Your task to perform on an android device: check the backup settings in the google photos Image 0: 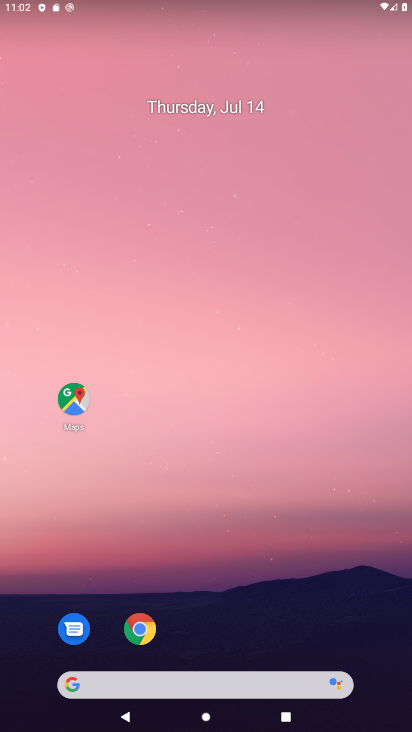
Step 0: drag from (223, 616) to (244, 15)
Your task to perform on an android device: check the backup settings in the google photos Image 1: 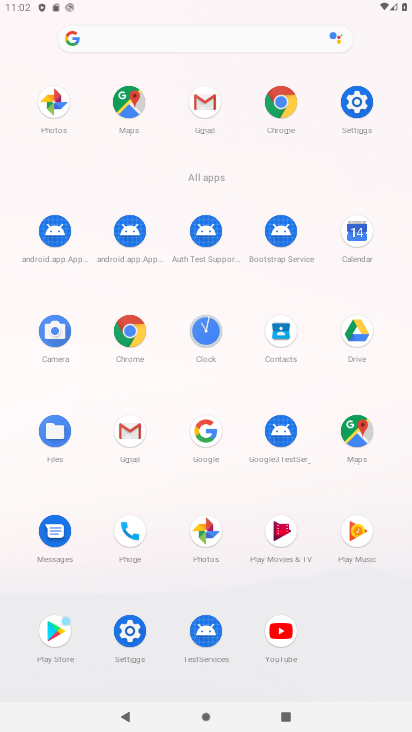
Step 1: click (205, 544)
Your task to perform on an android device: check the backup settings in the google photos Image 2: 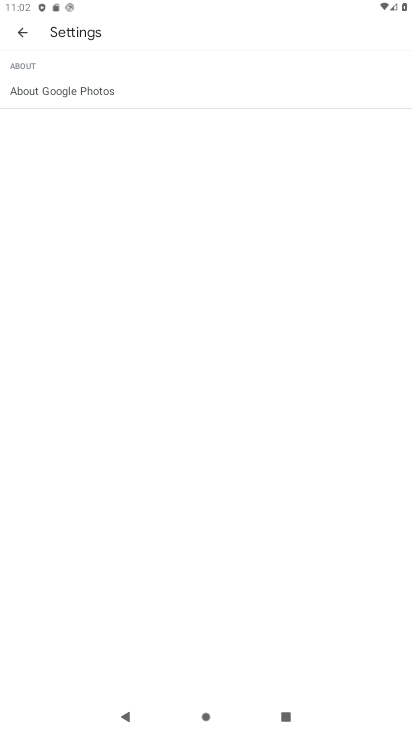
Step 2: click (19, 20)
Your task to perform on an android device: check the backup settings in the google photos Image 3: 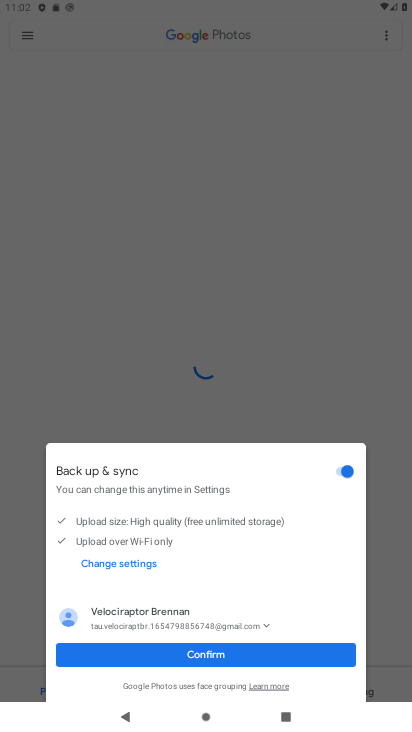
Step 3: click (239, 662)
Your task to perform on an android device: check the backup settings in the google photos Image 4: 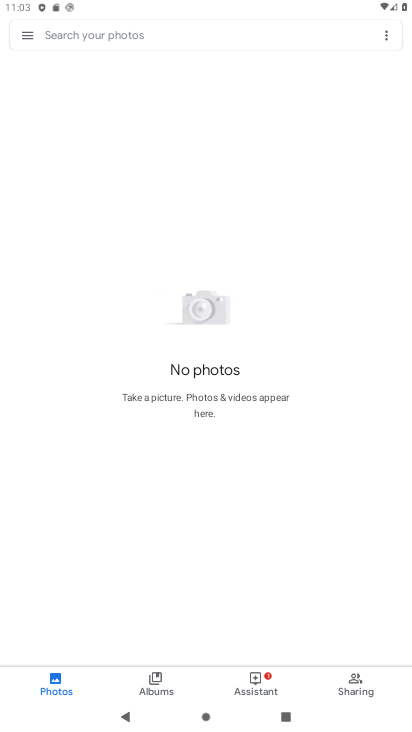
Step 4: click (26, 37)
Your task to perform on an android device: check the backup settings in the google photos Image 5: 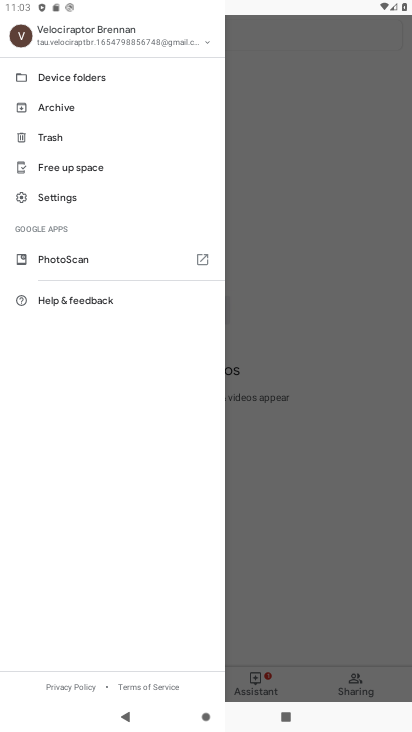
Step 5: click (63, 205)
Your task to perform on an android device: check the backup settings in the google photos Image 6: 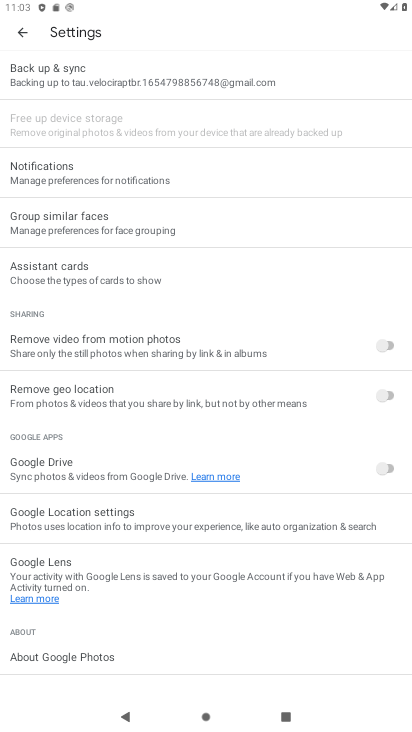
Step 6: click (77, 69)
Your task to perform on an android device: check the backup settings in the google photos Image 7: 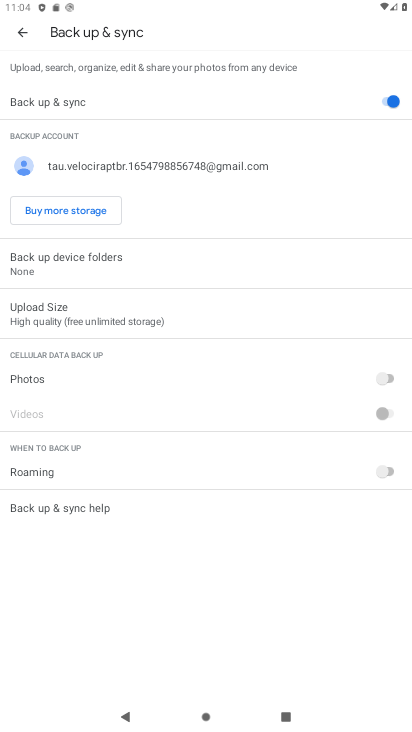
Step 7: task complete